Your task to perform on an android device: Go to location settings Image 0: 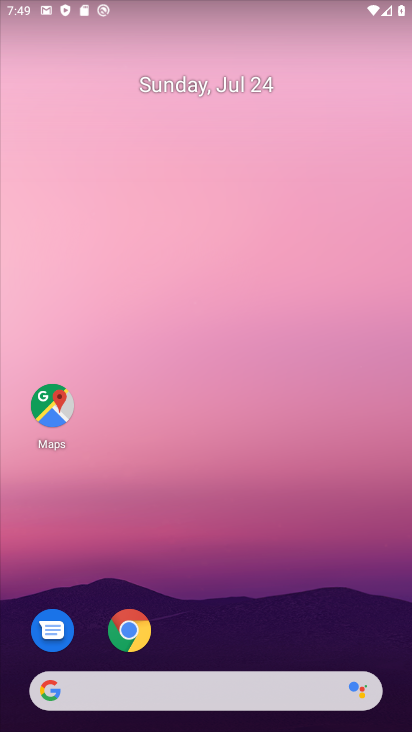
Step 0: press home button
Your task to perform on an android device: Go to location settings Image 1: 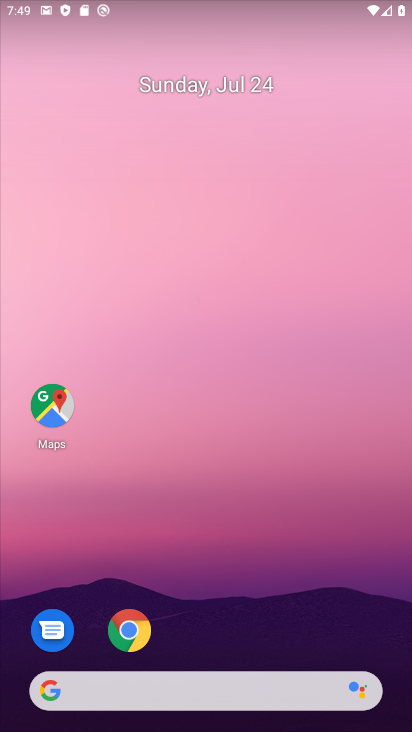
Step 1: drag from (221, 527) to (290, 100)
Your task to perform on an android device: Go to location settings Image 2: 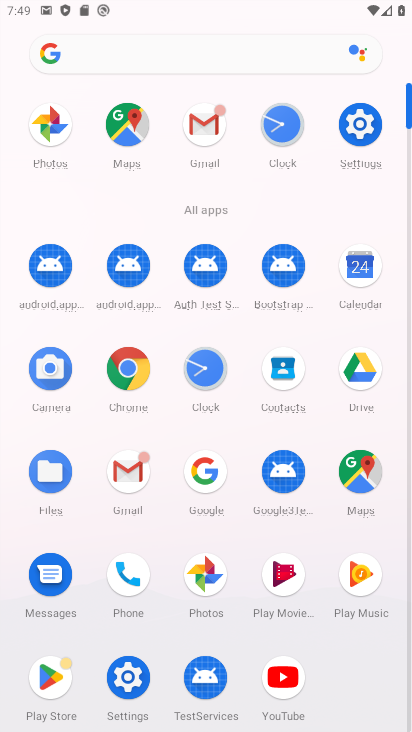
Step 2: click (359, 113)
Your task to perform on an android device: Go to location settings Image 3: 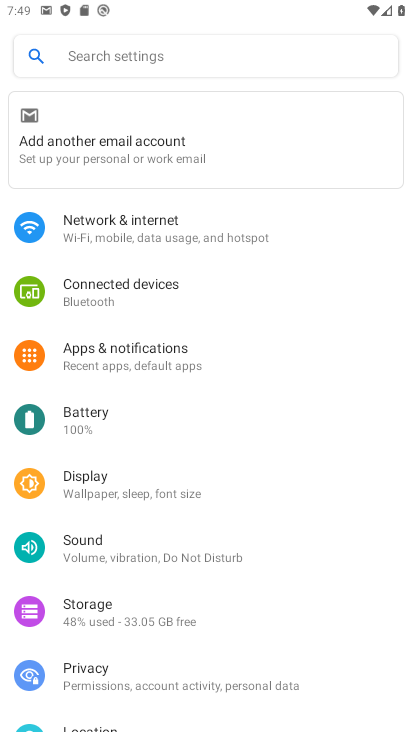
Step 3: click (154, 265)
Your task to perform on an android device: Go to location settings Image 4: 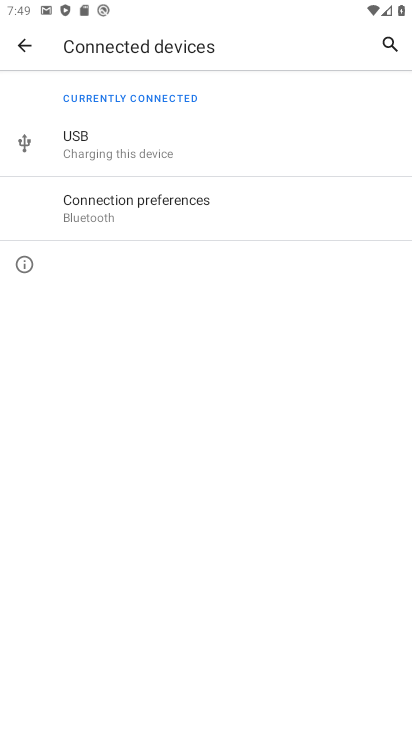
Step 4: click (31, 45)
Your task to perform on an android device: Go to location settings Image 5: 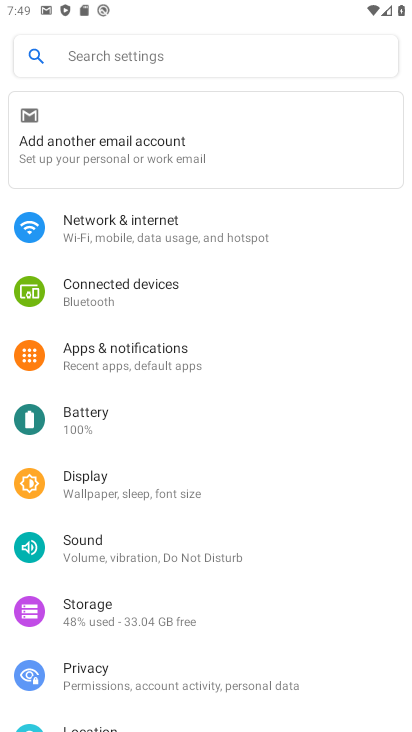
Step 5: drag from (272, 605) to (307, 417)
Your task to perform on an android device: Go to location settings Image 6: 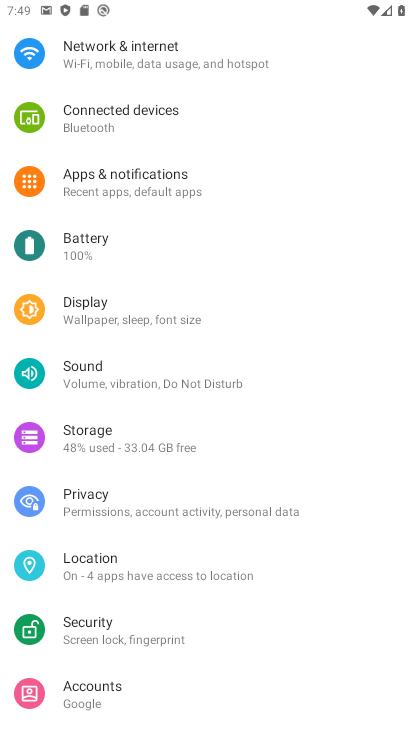
Step 6: click (171, 568)
Your task to perform on an android device: Go to location settings Image 7: 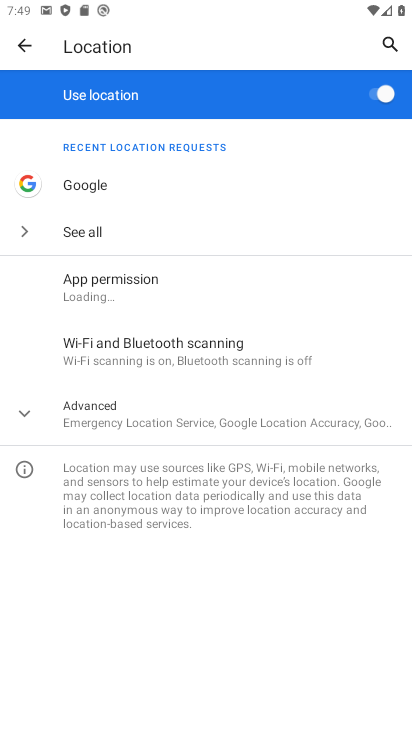
Step 7: task complete